Your task to perform on an android device: open app "Life360: Find Family & Friends" (install if not already installed) Image 0: 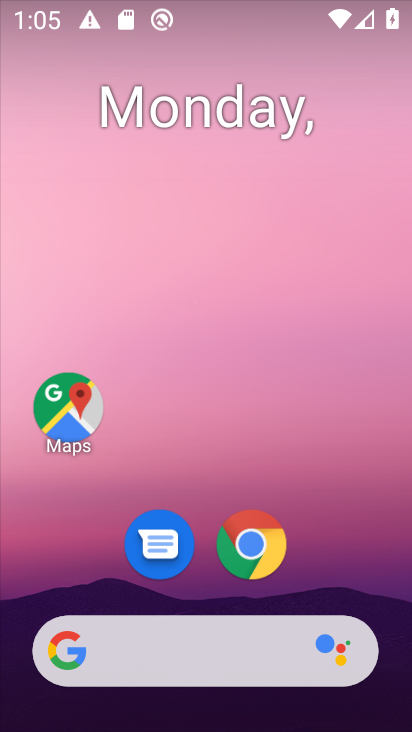
Step 0: drag from (381, 579) to (280, 1)
Your task to perform on an android device: open app "Life360: Find Family & Friends" (install if not already installed) Image 1: 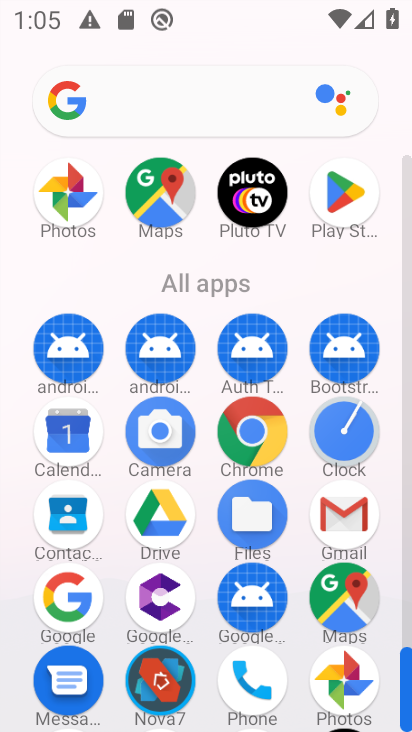
Step 1: click (362, 201)
Your task to perform on an android device: open app "Life360: Find Family & Friends" (install if not already installed) Image 2: 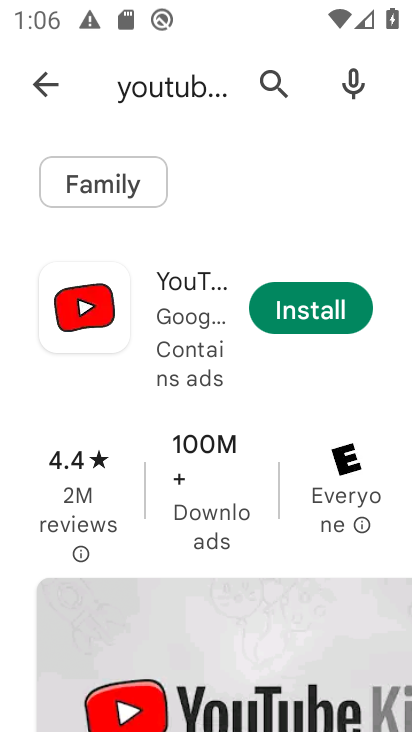
Step 2: press back button
Your task to perform on an android device: open app "Life360: Find Family & Friends" (install if not already installed) Image 3: 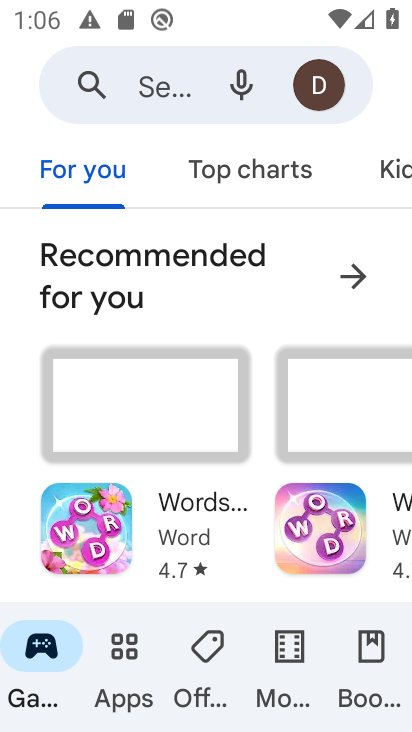
Step 3: click (171, 86)
Your task to perform on an android device: open app "Life360: Find Family & Friends" (install if not already installed) Image 4: 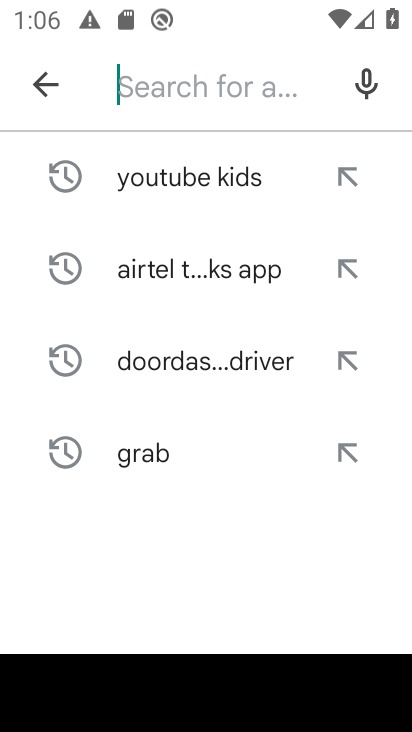
Step 4: type "Life360: Find Family & Friends"
Your task to perform on an android device: open app "Life360: Find Family & Friends" (install if not already installed) Image 5: 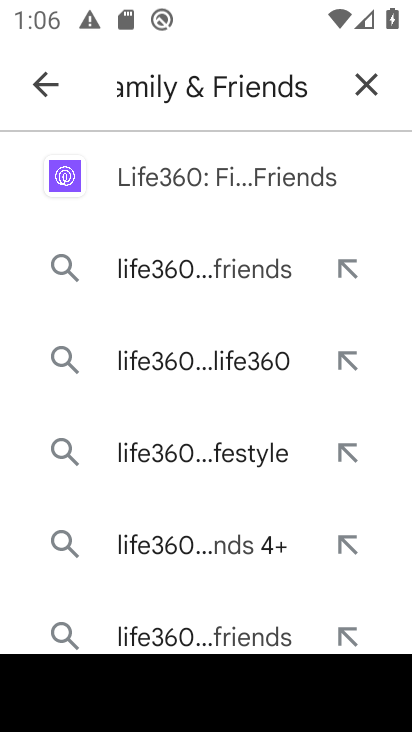
Step 5: click (154, 177)
Your task to perform on an android device: open app "Life360: Find Family & Friends" (install if not already installed) Image 6: 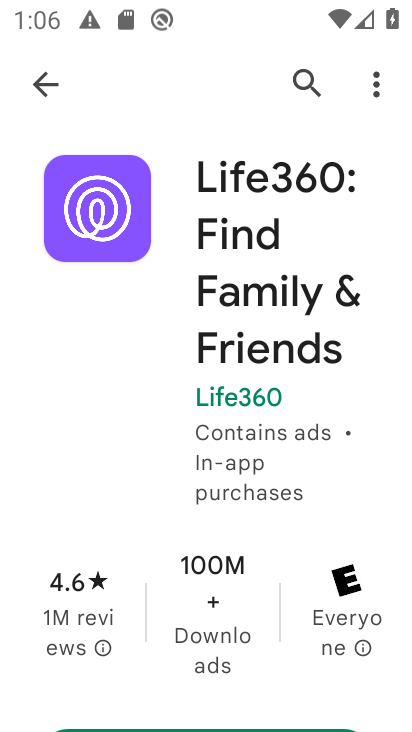
Step 6: task complete